Your task to perform on an android device: Toggle the flashlight Image 0: 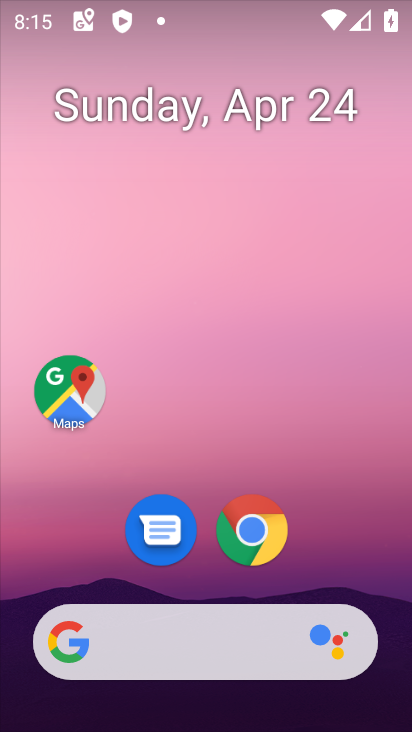
Step 0: drag from (206, 580) to (404, 13)
Your task to perform on an android device: Toggle the flashlight Image 1: 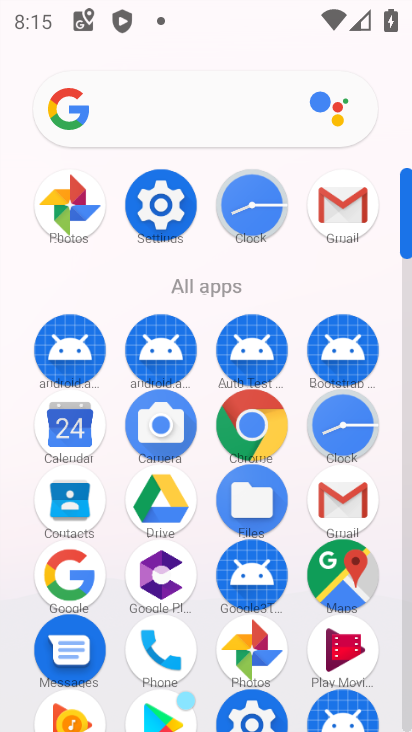
Step 1: click (163, 199)
Your task to perform on an android device: Toggle the flashlight Image 2: 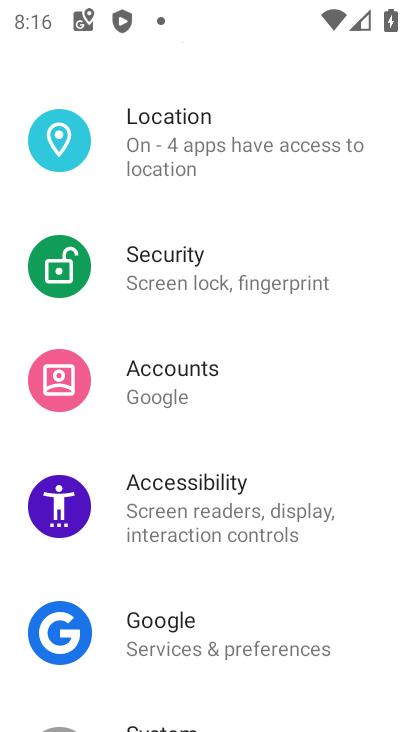
Step 2: task complete